Your task to perform on an android device: open the mobile data screen to see how much data has been used Image 0: 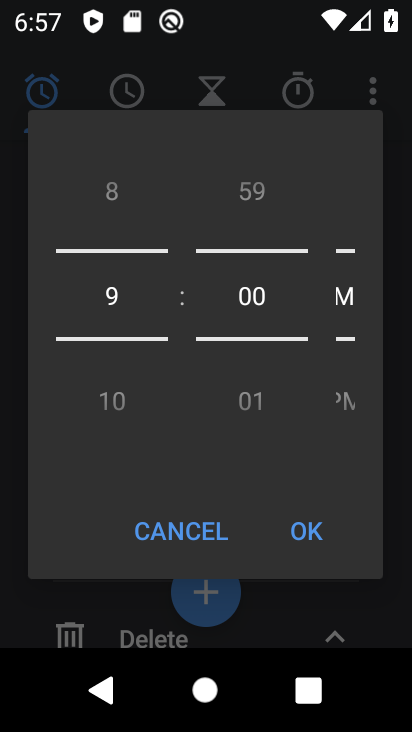
Step 0: press home button
Your task to perform on an android device: open the mobile data screen to see how much data has been used Image 1: 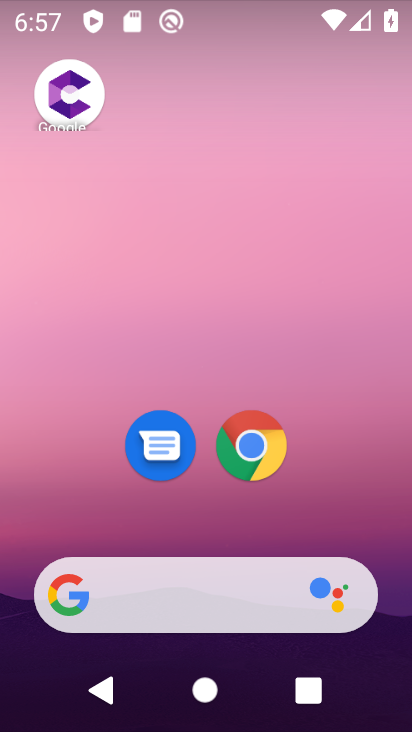
Step 1: drag from (319, 462) to (247, 40)
Your task to perform on an android device: open the mobile data screen to see how much data has been used Image 2: 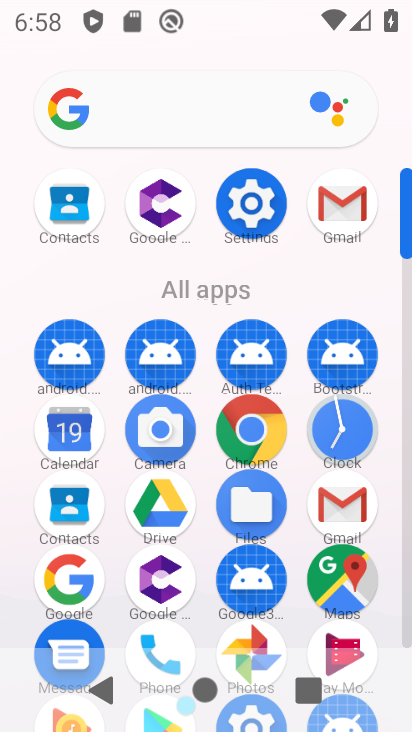
Step 2: click (242, 204)
Your task to perform on an android device: open the mobile data screen to see how much data has been used Image 3: 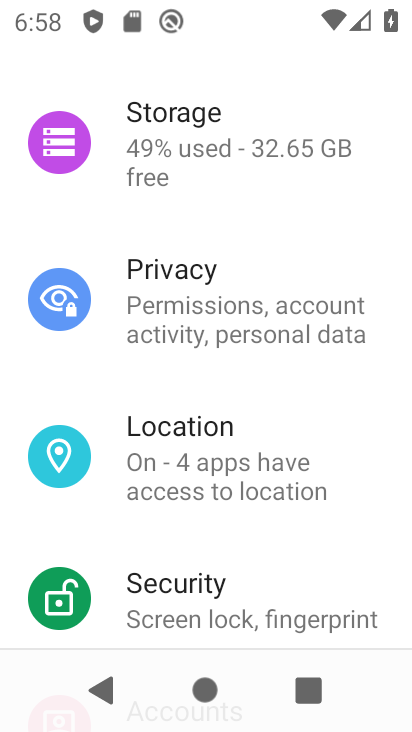
Step 3: drag from (216, 199) to (324, 651)
Your task to perform on an android device: open the mobile data screen to see how much data has been used Image 4: 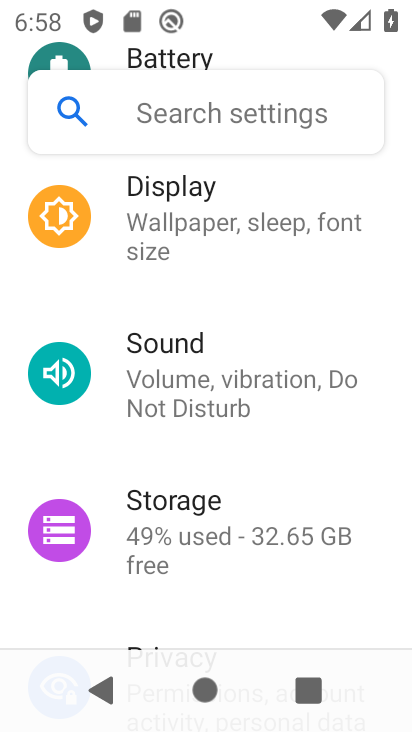
Step 4: drag from (246, 304) to (267, 608)
Your task to perform on an android device: open the mobile data screen to see how much data has been used Image 5: 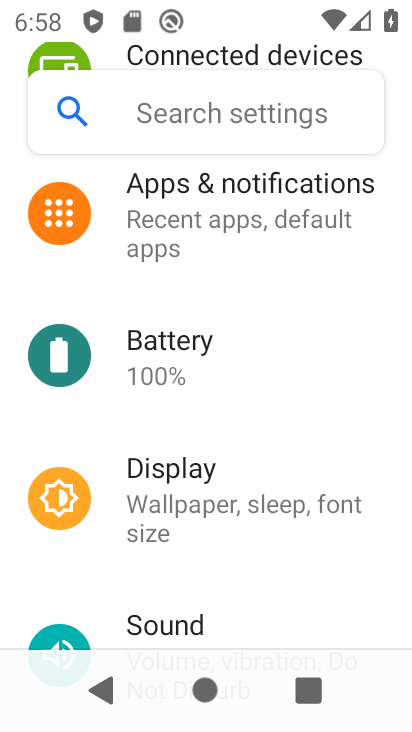
Step 5: drag from (233, 275) to (353, 729)
Your task to perform on an android device: open the mobile data screen to see how much data has been used Image 6: 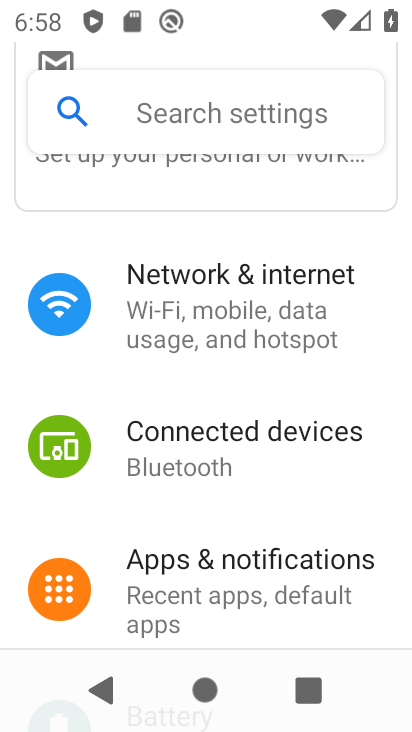
Step 6: click (179, 282)
Your task to perform on an android device: open the mobile data screen to see how much data has been used Image 7: 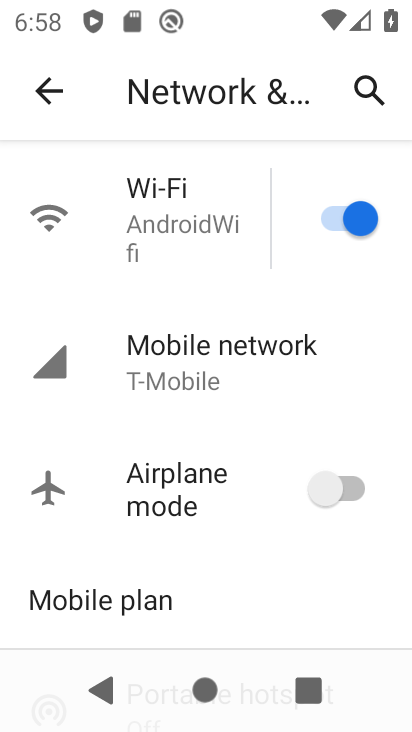
Step 7: click (195, 368)
Your task to perform on an android device: open the mobile data screen to see how much data has been used Image 8: 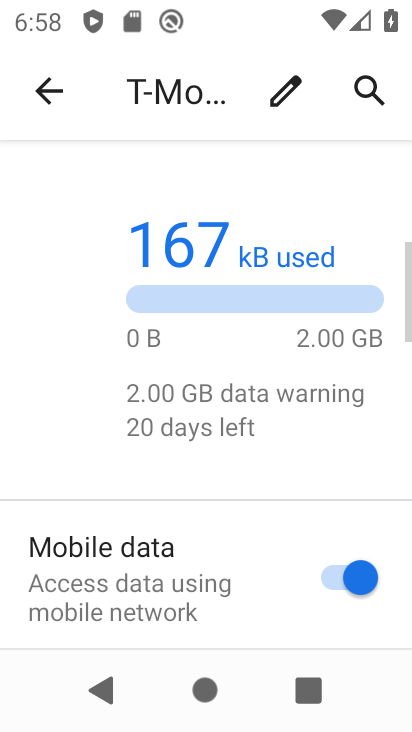
Step 8: task complete